Your task to perform on an android device: What's the weather? Image 0: 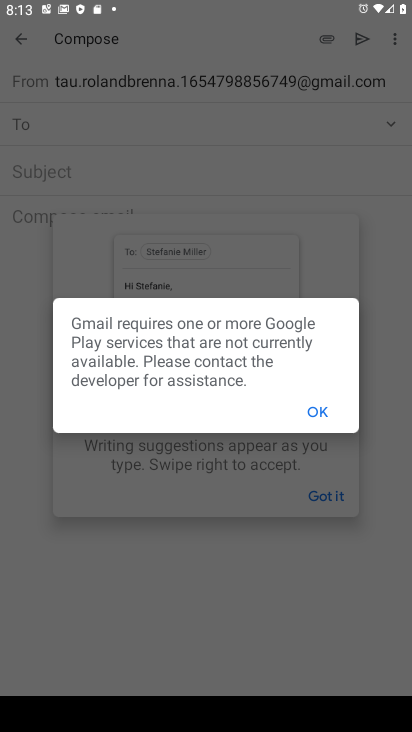
Step 0: press home button
Your task to perform on an android device: What's the weather? Image 1: 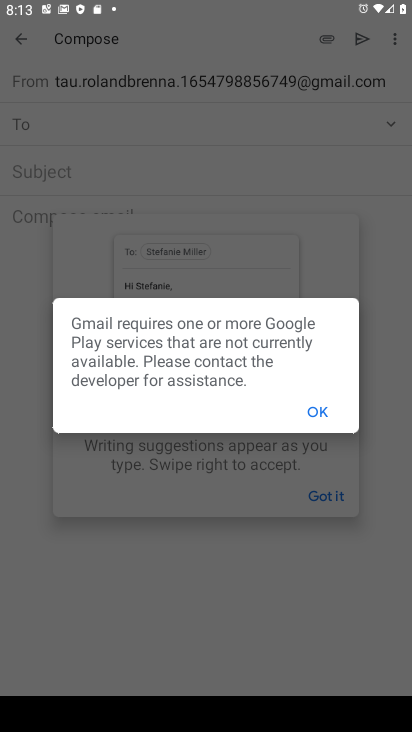
Step 1: drag from (370, 701) to (280, 6)
Your task to perform on an android device: What's the weather? Image 2: 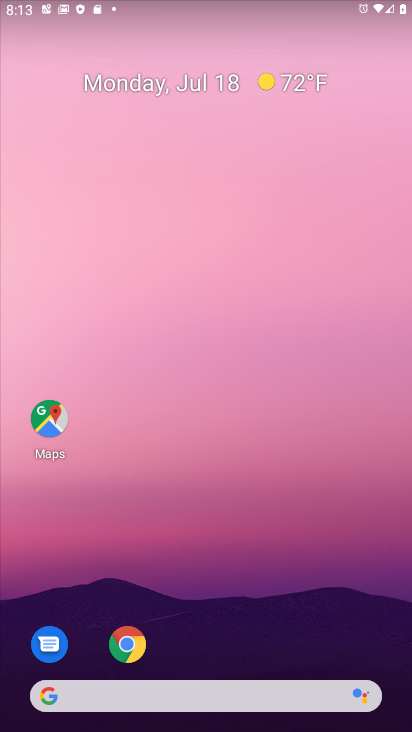
Step 2: drag from (398, 668) to (231, 34)
Your task to perform on an android device: What's the weather? Image 3: 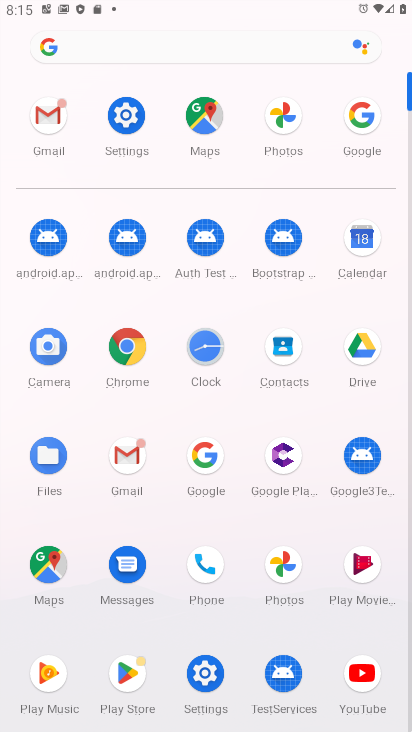
Step 3: click (191, 469)
Your task to perform on an android device: What's the weather? Image 4: 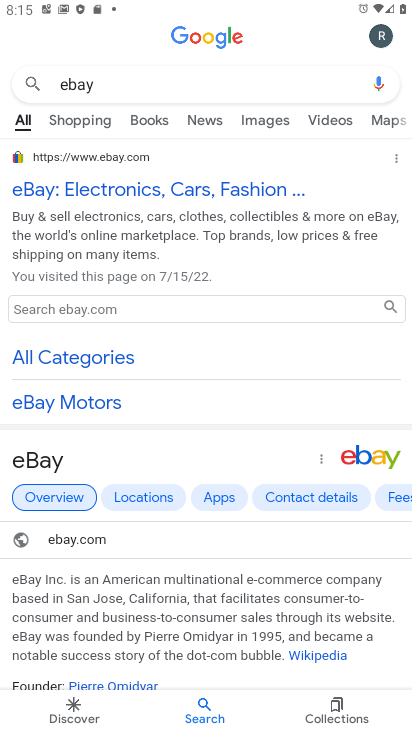
Step 4: press back button
Your task to perform on an android device: What's the weather? Image 5: 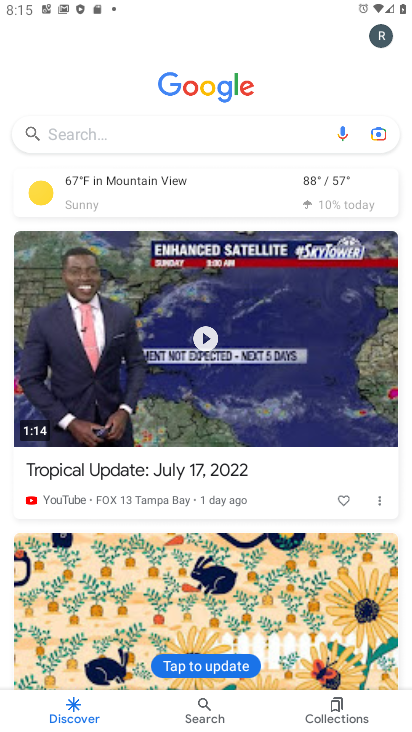
Step 5: click (118, 137)
Your task to perform on an android device: What's the weather? Image 6: 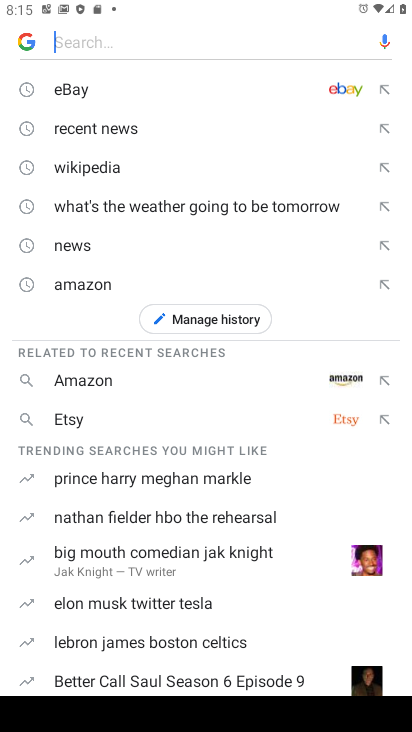
Step 6: type " weather"
Your task to perform on an android device: What's the weather? Image 7: 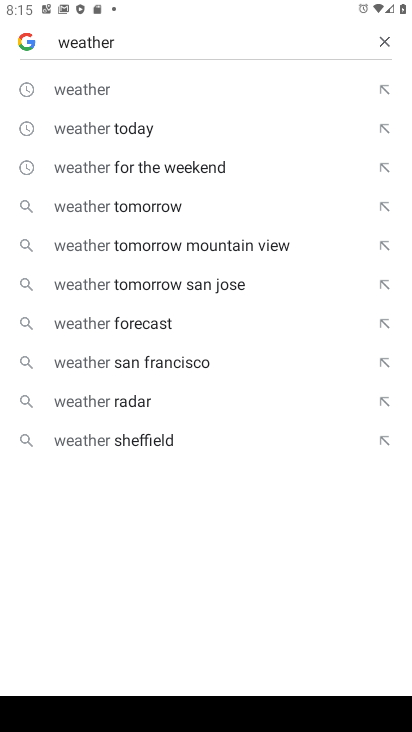
Step 7: click (104, 88)
Your task to perform on an android device: What's the weather? Image 8: 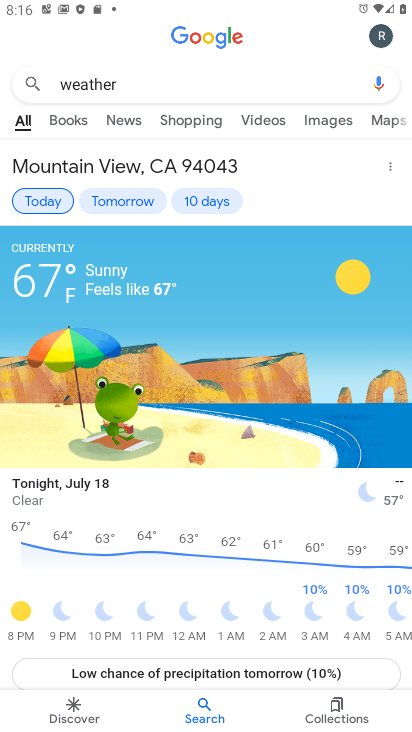
Step 8: task complete